Your task to perform on an android device: Open calendar and show me the first week of next month Image 0: 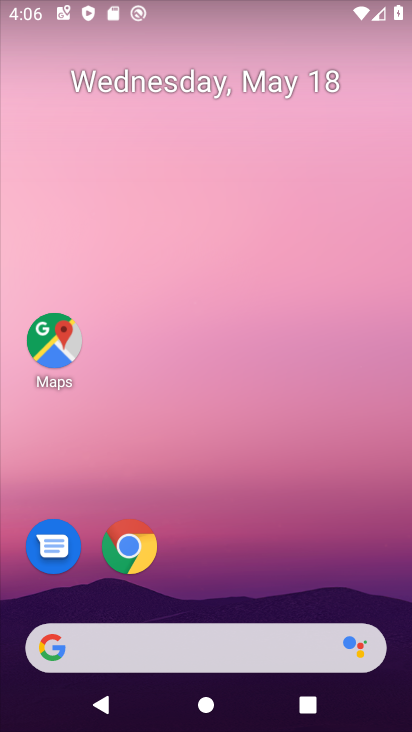
Step 0: drag from (255, 555) to (342, 33)
Your task to perform on an android device: Open calendar and show me the first week of next month Image 1: 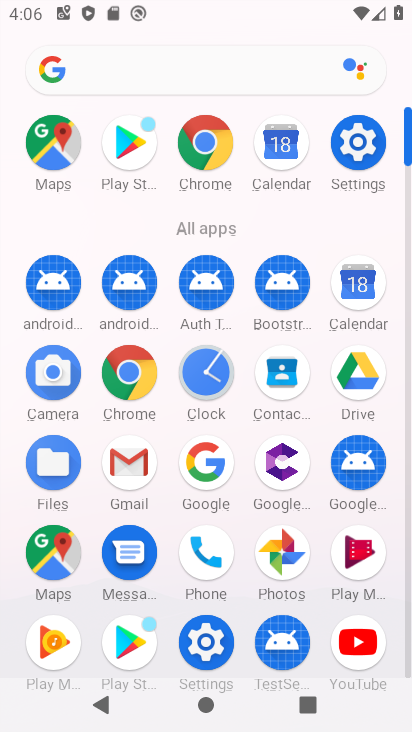
Step 1: click (374, 299)
Your task to perform on an android device: Open calendar and show me the first week of next month Image 2: 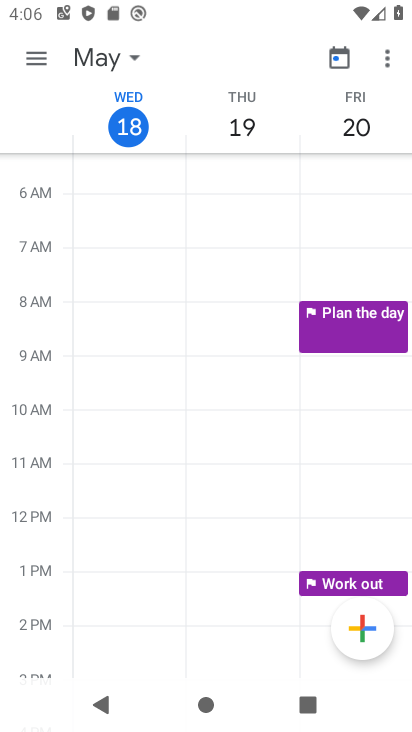
Step 2: click (41, 59)
Your task to perform on an android device: Open calendar and show me the first week of next month Image 3: 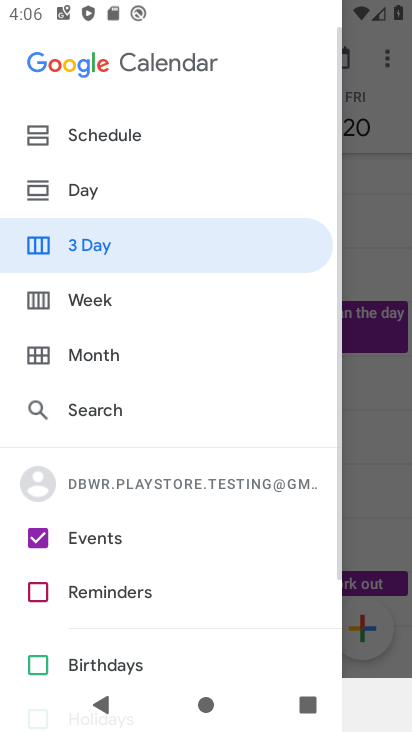
Step 3: click (112, 312)
Your task to perform on an android device: Open calendar and show me the first week of next month Image 4: 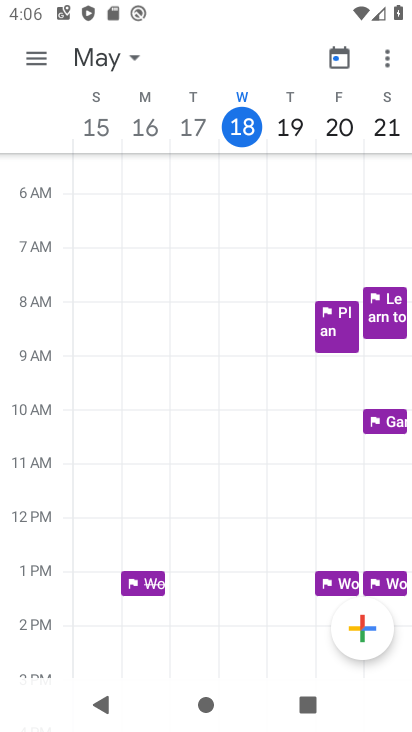
Step 4: task complete